Your task to perform on an android device: turn notification dots on Image 0: 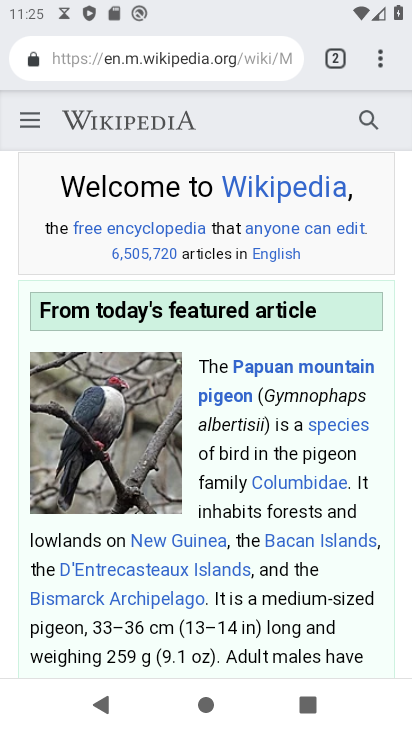
Step 0: press home button
Your task to perform on an android device: turn notification dots on Image 1: 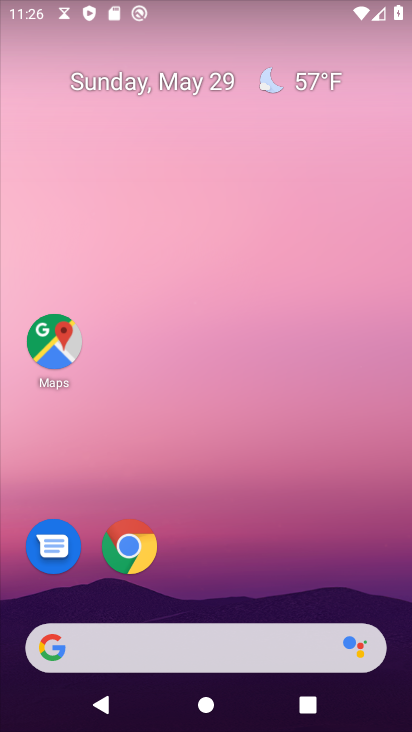
Step 1: drag from (188, 629) to (346, 73)
Your task to perform on an android device: turn notification dots on Image 2: 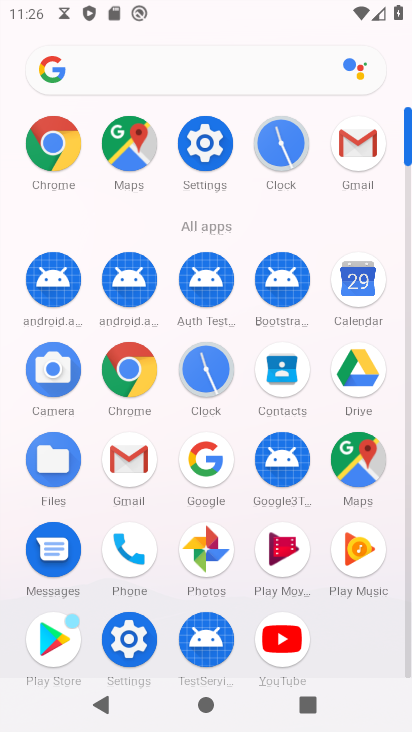
Step 2: click (193, 136)
Your task to perform on an android device: turn notification dots on Image 3: 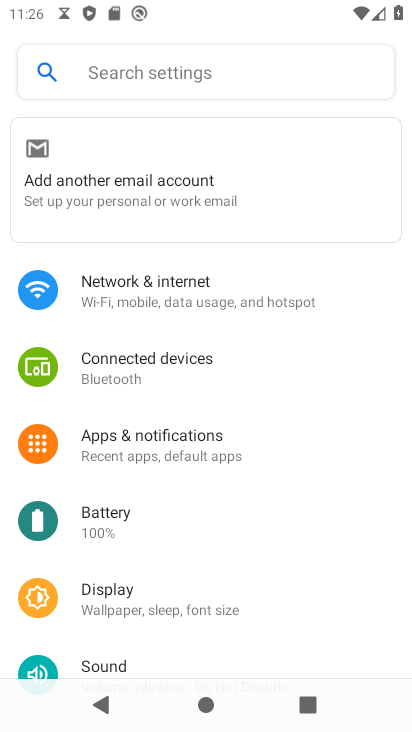
Step 3: click (156, 435)
Your task to perform on an android device: turn notification dots on Image 4: 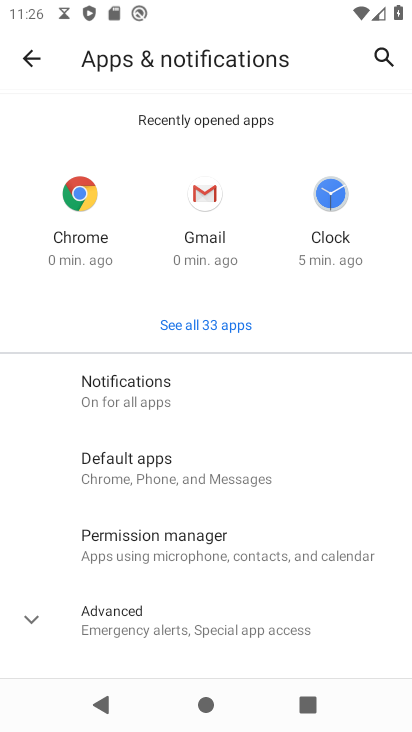
Step 4: click (145, 380)
Your task to perform on an android device: turn notification dots on Image 5: 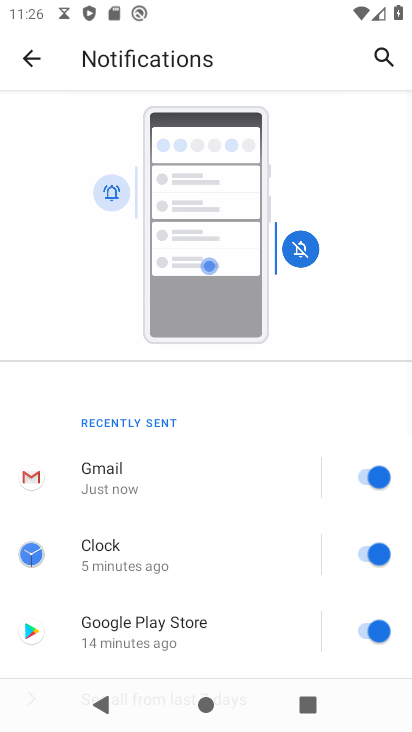
Step 5: drag from (228, 632) to (350, 143)
Your task to perform on an android device: turn notification dots on Image 6: 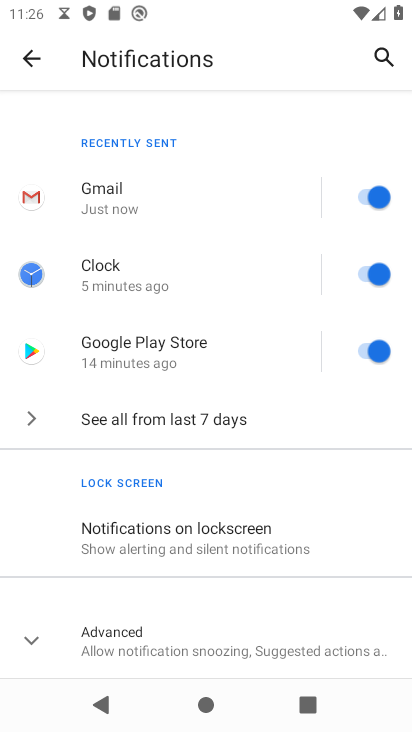
Step 6: click (152, 644)
Your task to perform on an android device: turn notification dots on Image 7: 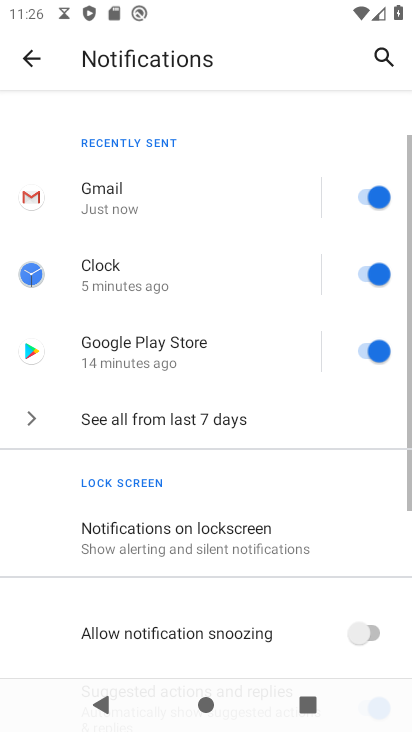
Step 7: task complete